Your task to perform on an android device: Open sound settings Image 0: 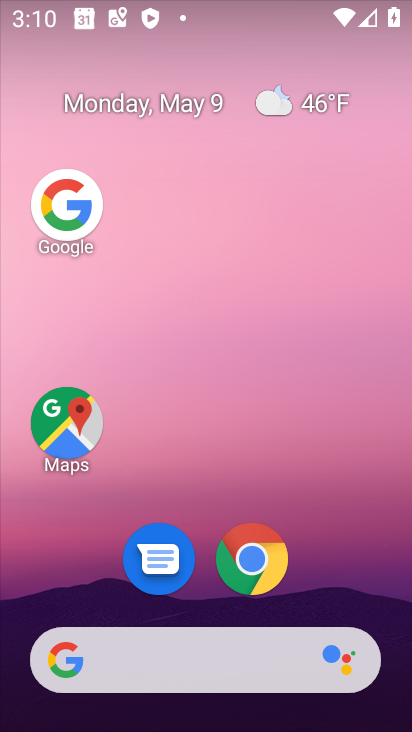
Step 0: drag from (365, 551) to (407, 211)
Your task to perform on an android device: Open sound settings Image 1: 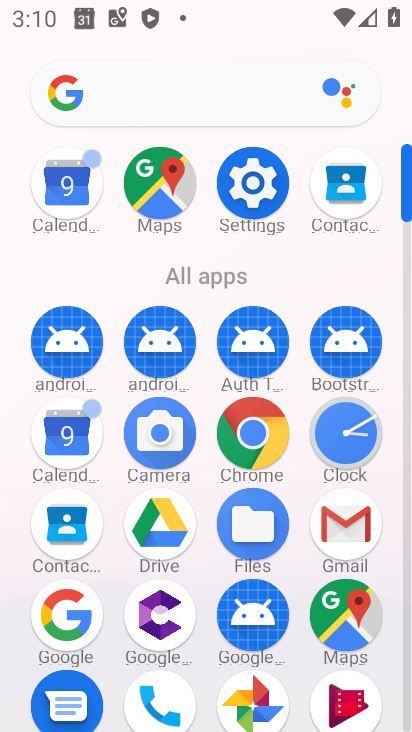
Step 1: click (255, 205)
Your task to perform on an android device: Open sound settings Image 2: 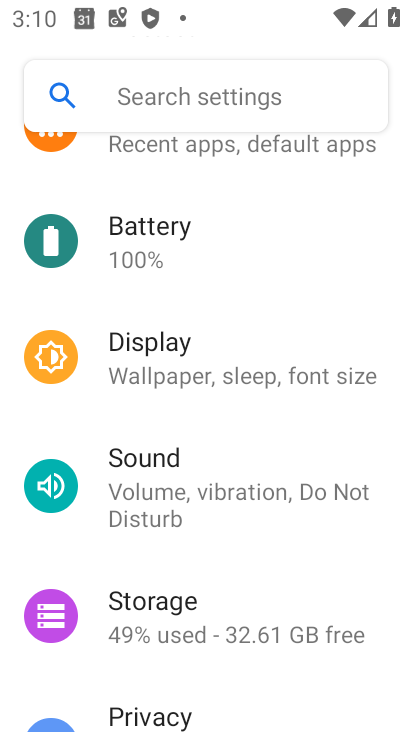
Step 2: click (208, 472)
Your task to perform on an android device: Open sound settings Image 3: 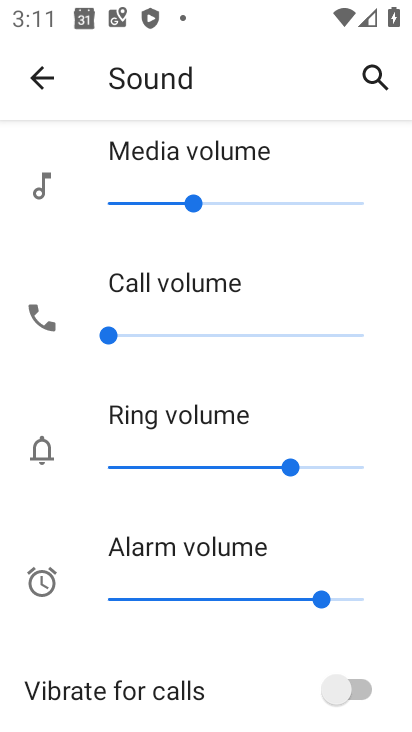
Step 3: task complete